Your task to perform on an android device: turn on translation in the chrome app Image 0: 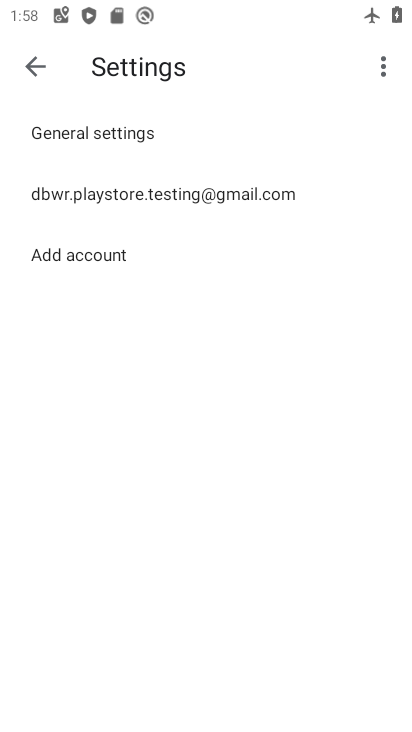
Step 0: press home button
Your task to perform on an android device: turn on translation in the chrome app Image 1: 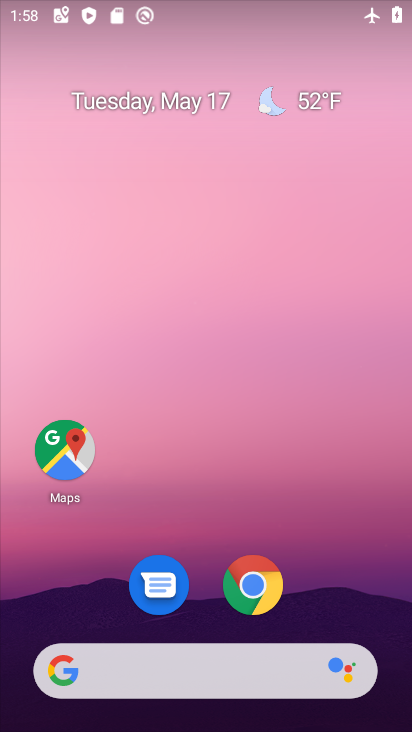
Step 1: click (258, 624)
Your task to perform on an android device: turn on translation in the chrome app Image 2: 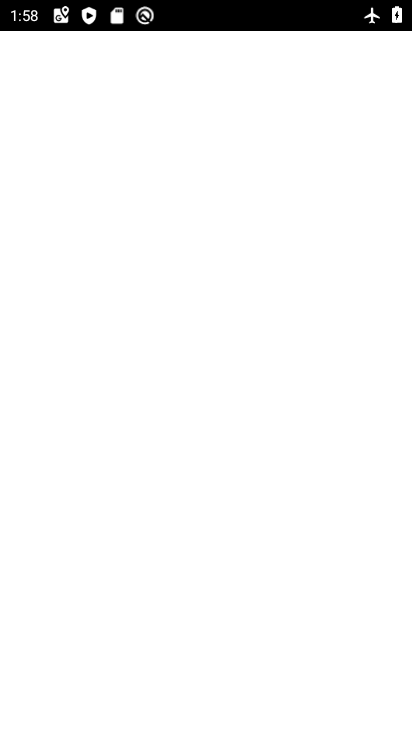
Step 2: click (261, 604)
Your task to perform on an android device: turn on translation in the chrome app Image 3: 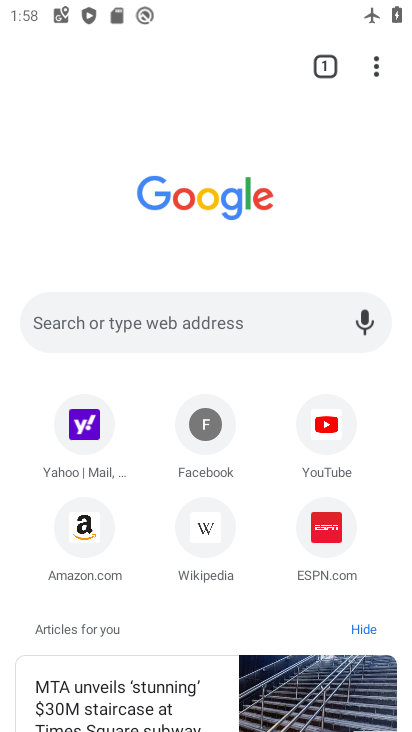
Step 3: click (374, 68)
Your task to perform on an android device: turn on translation in the chrome app Image 4: 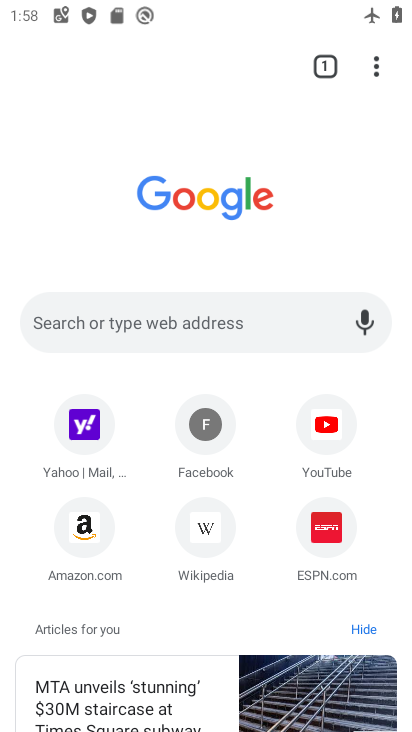
Step 4: click (374, 68)
Your task to perform on an android device: turn on translation in the chrome app Image 5: 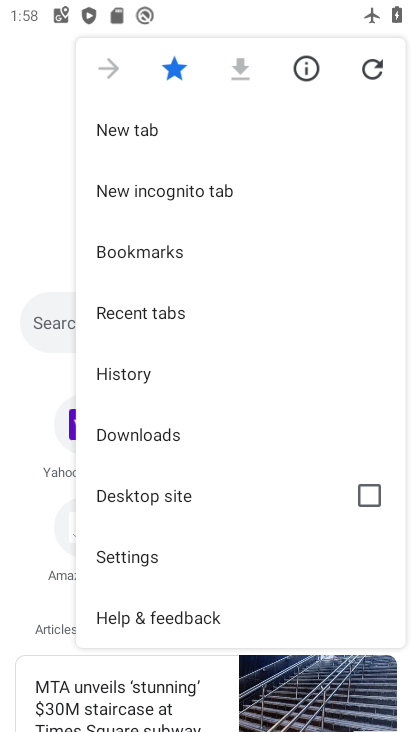
Step 5: click (147, 560)
Your task to perform on an android device: turn on translation in the chrome app Image 6: 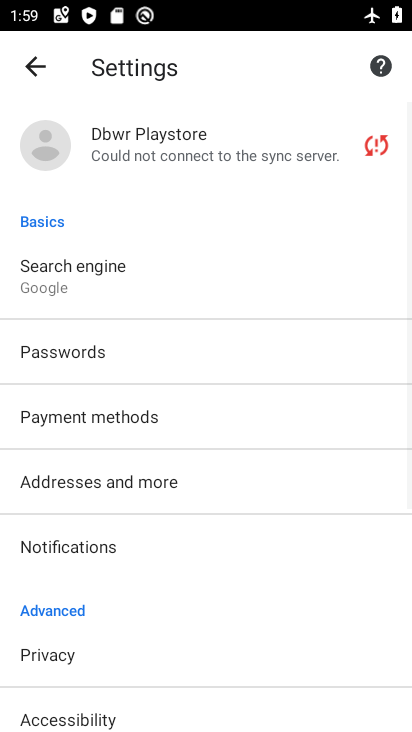
Step 6: drag from (191, 588) to (310, 185)
Your task to perform on an android device: turn on translation in the chrome app Image 7: 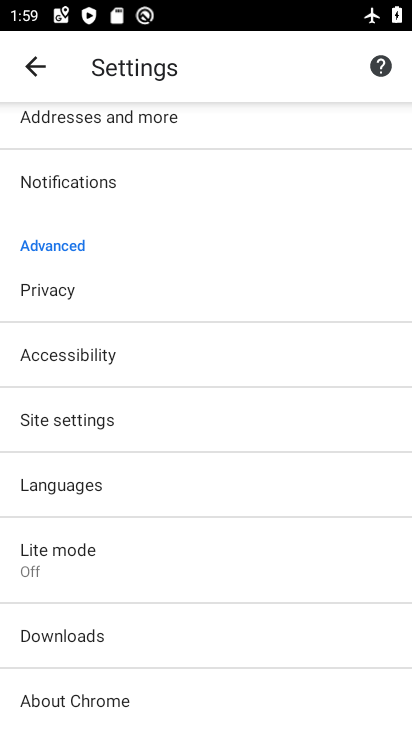
Step 7: click (221, 471)
Your task to perform on an android device: turn on translation in the chrome app Image 8: 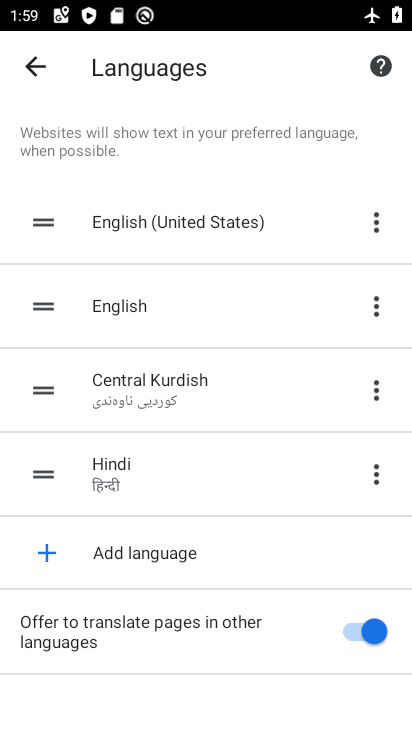
Step 8: task complete